Your task to perform on an android device: set the timer Image 0: 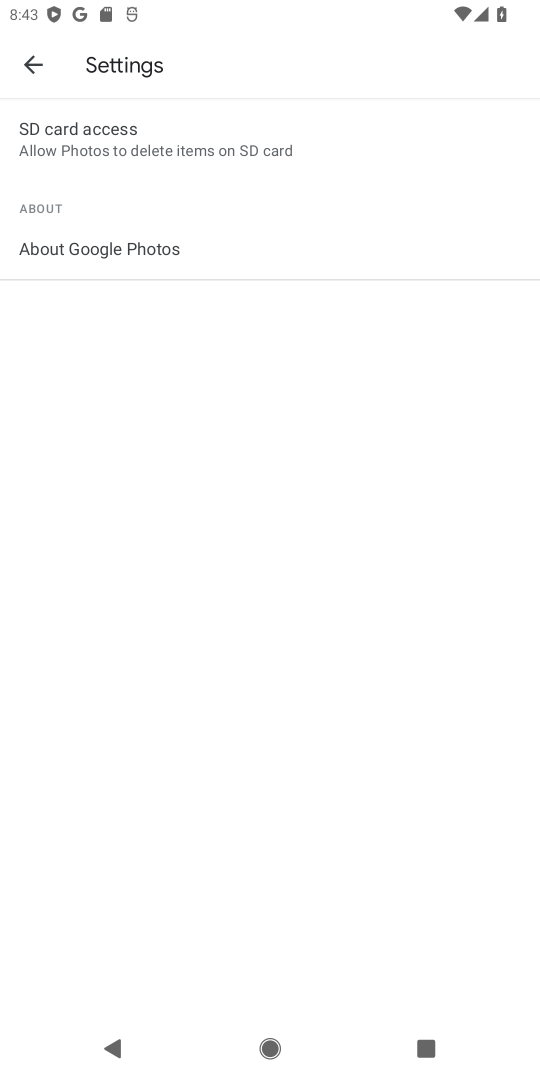
Step 0: press home button
Your task to perform on an android device: set the timer Image 1: 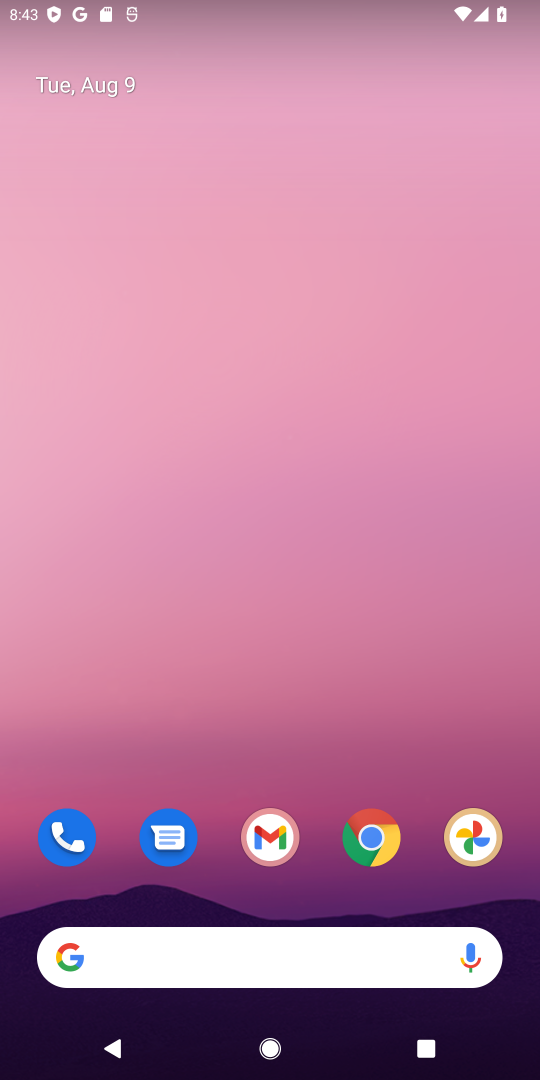
Step 1: drag from (328, 882) to (326, 135)
Your task to perform on an android device: set the timer Image 2: 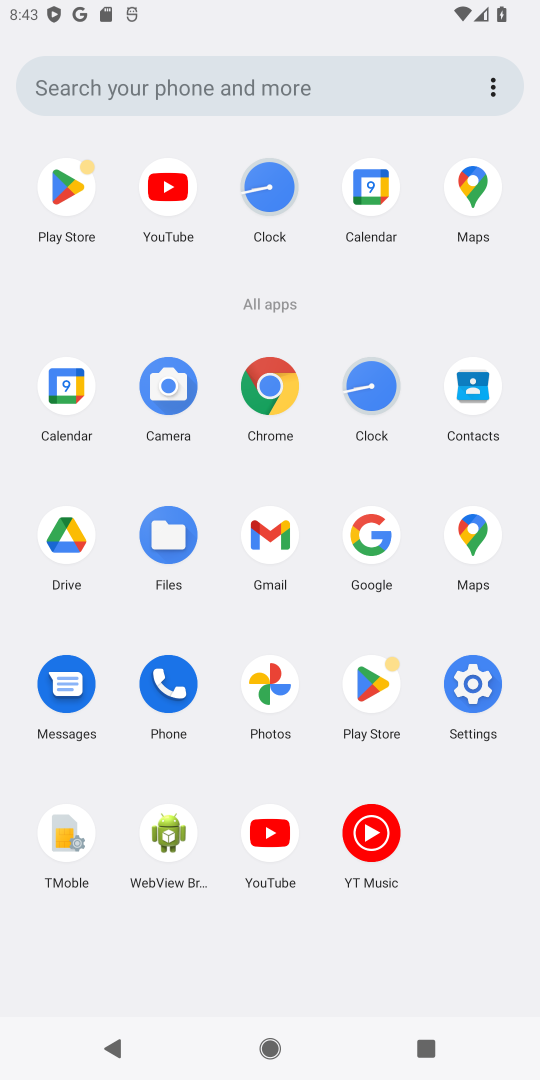
Step 2: click (373, 402)
Your task to perform on an android device: set the timer Image 3: 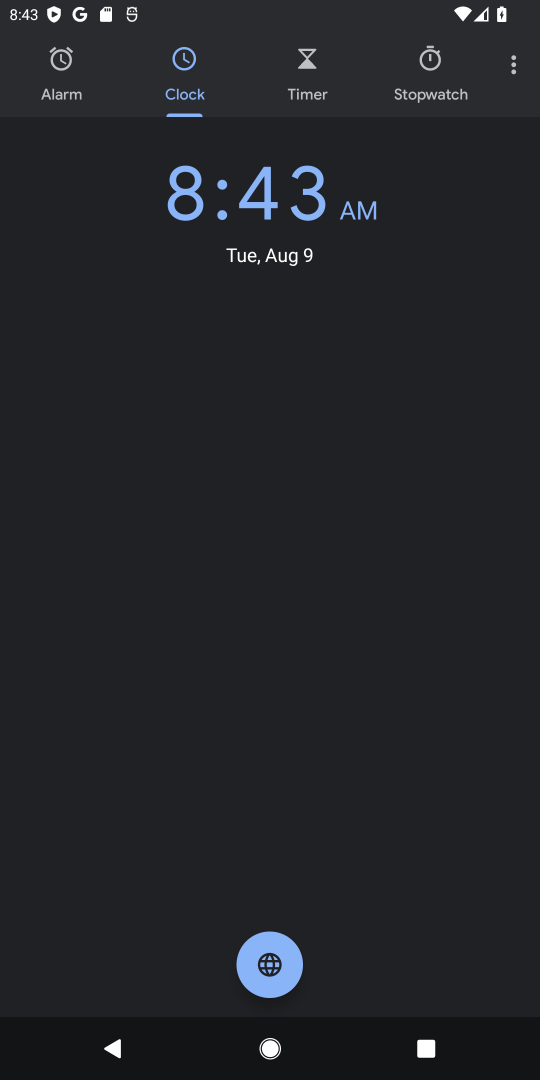
Step 3: click (309, 68)
Your task to perform on an android device: set the timer Image 4: 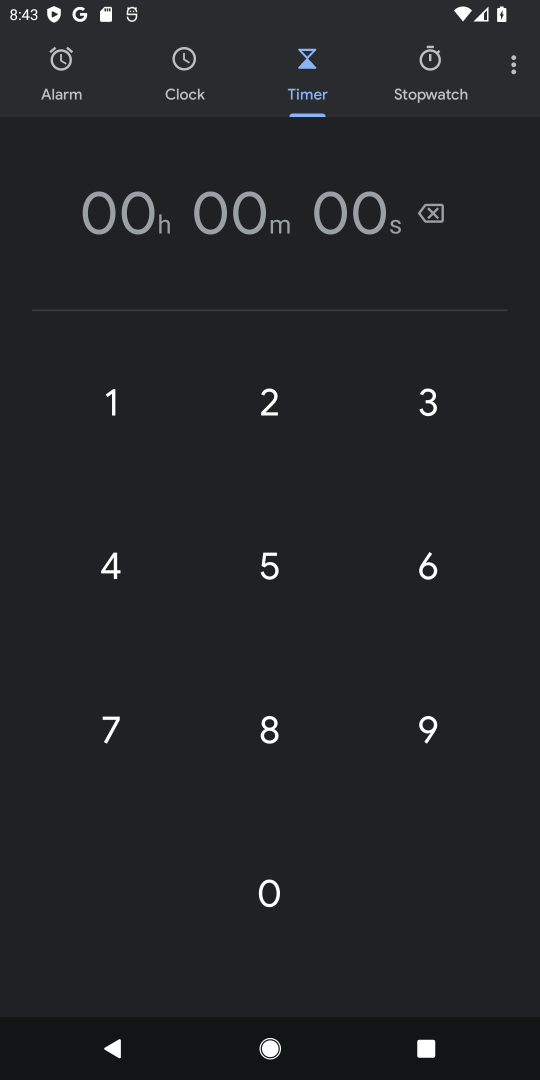
Step 4: click (280, 385)
Your task to perform on an android device: set the timer Image 5: 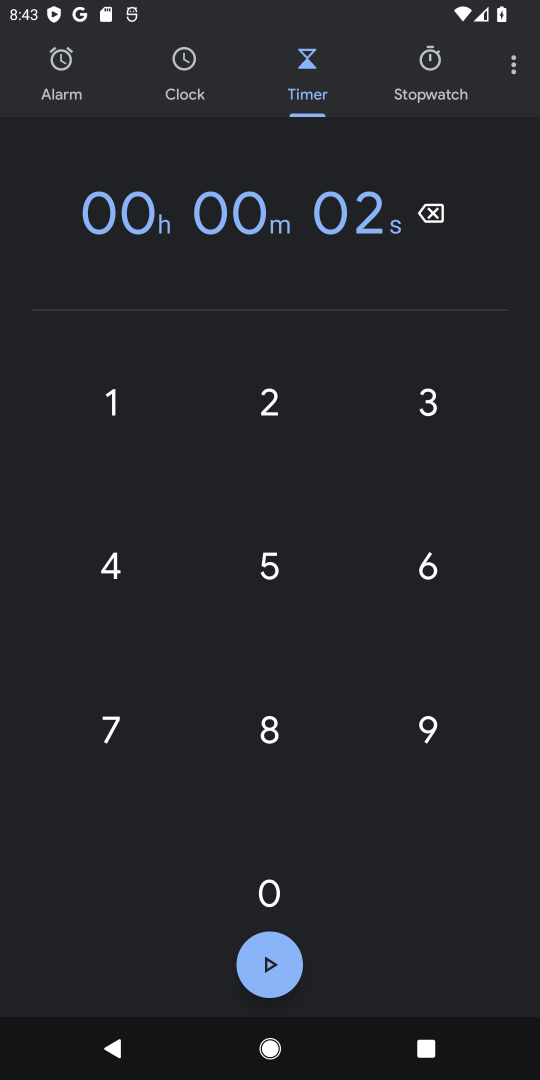
Step 5: click (277, 569)
Your task to perform on an android device: set the timer Image 6: 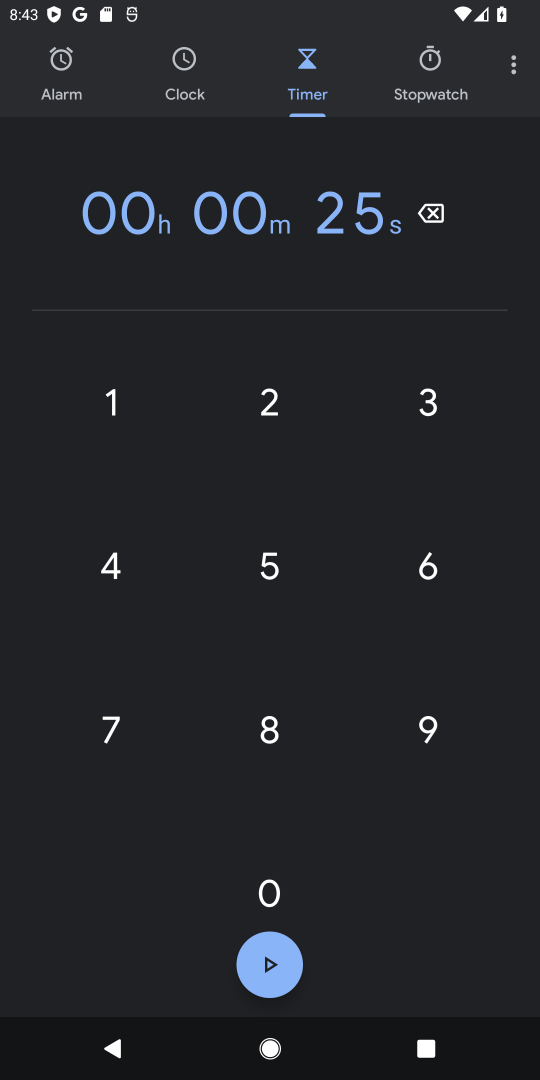
Step 6: click (264, 719)
Your task to perform on an android device: set the timer Image 7: 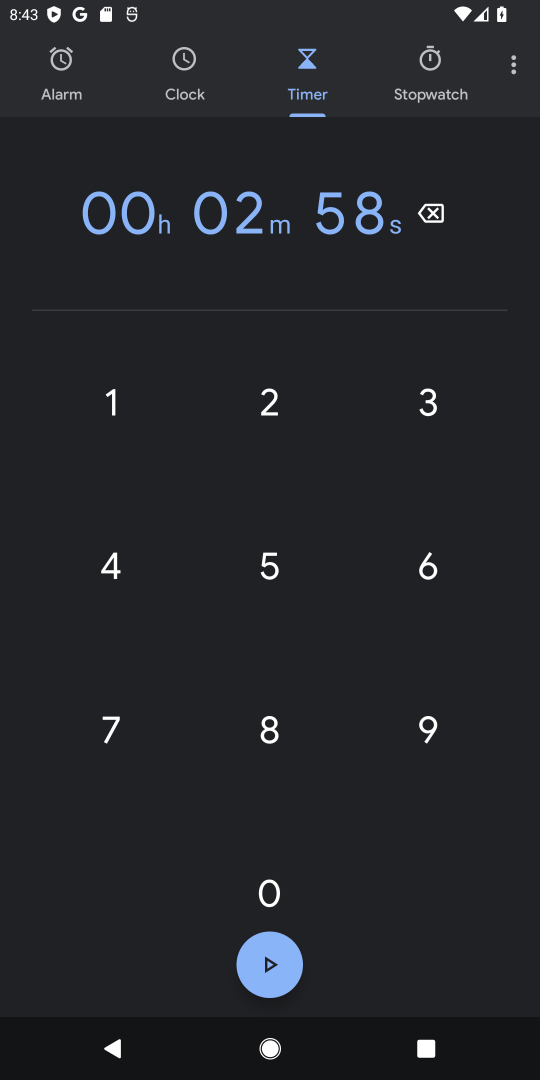
Step 7: click (274, 724)
Your task to perform on an android device: set the timer Image 8: 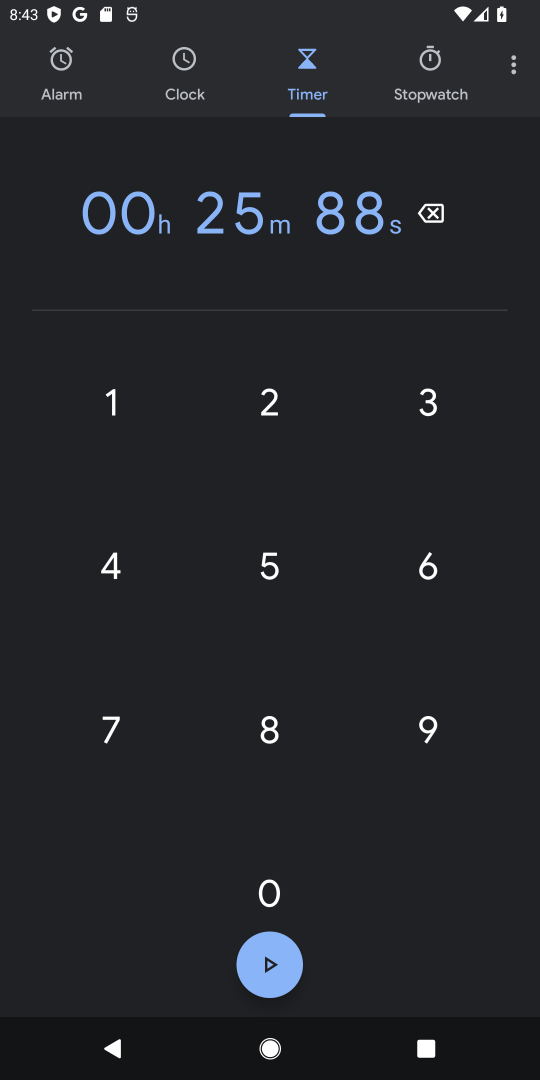
Step 8: click (283, 956)
Your task to perform on an android device: set the timer Image 9: 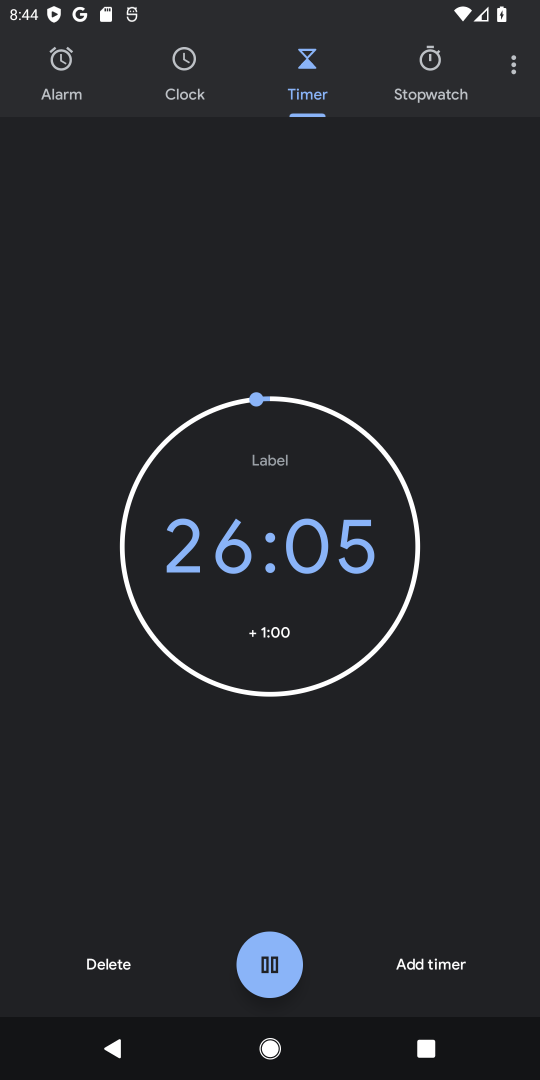
Step 9: task complete